Your task to perform on an android device: open a new tab in the chrome app Image 0: 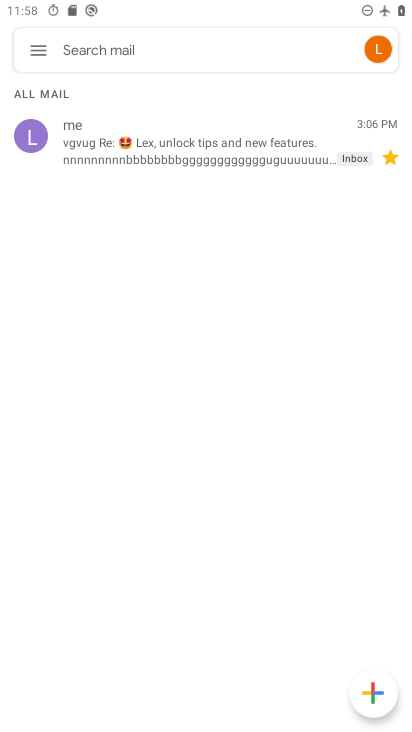
Step 0: press home button
Your task to perform on an android device: open a new tab in the chrome app Image 1: 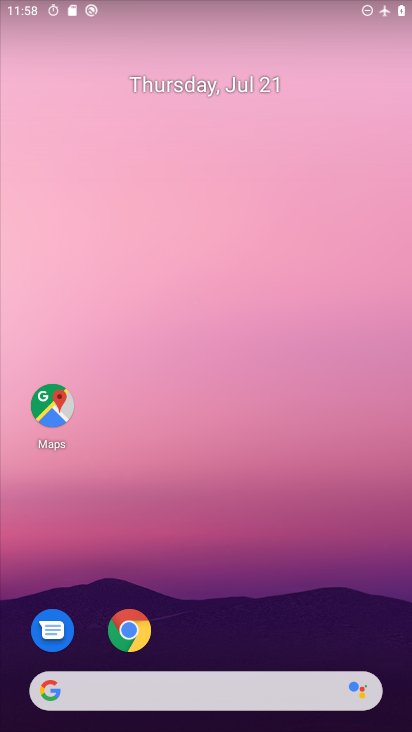
Step 1: click (126, 631)
Your task to perform on an android device: open a new tab in the chrome app Image 2: 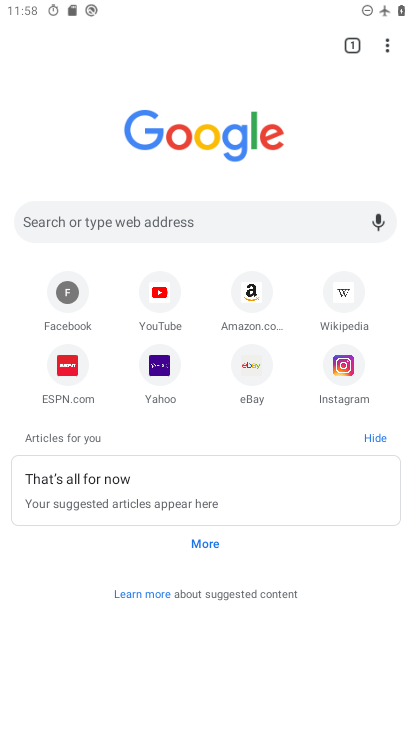
Step 2: click (350, 44)
Your task to perform on an android device: open a new tab in the chrome app Image 3: 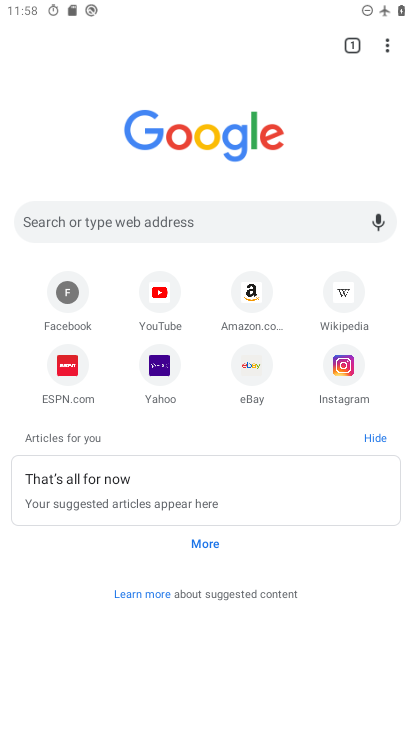
Step 3: click (308, 66)
Your task to perform on an android device: open a new tab in the chrome app Image 4: 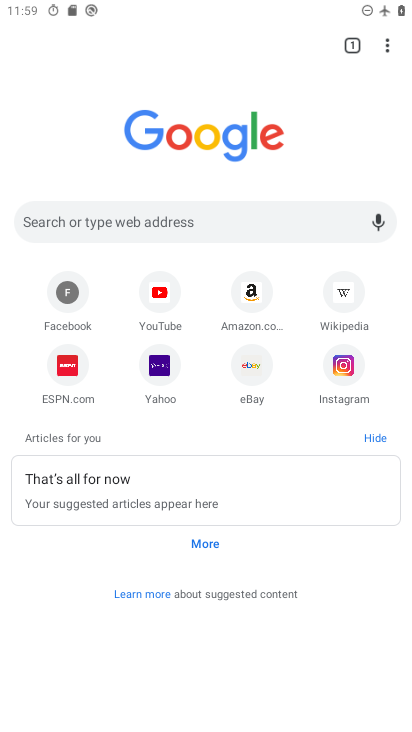
Step 4: click (354, 40)
Your task to perform on an android device: open a new tab in the chrome app Image 5: 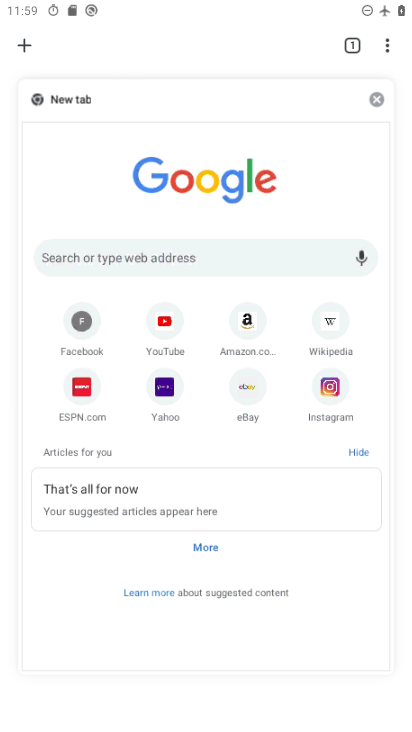
Step 5: click (25, 41)
Your task to perform on an android device: open a new tab in the chrome app Image 6: 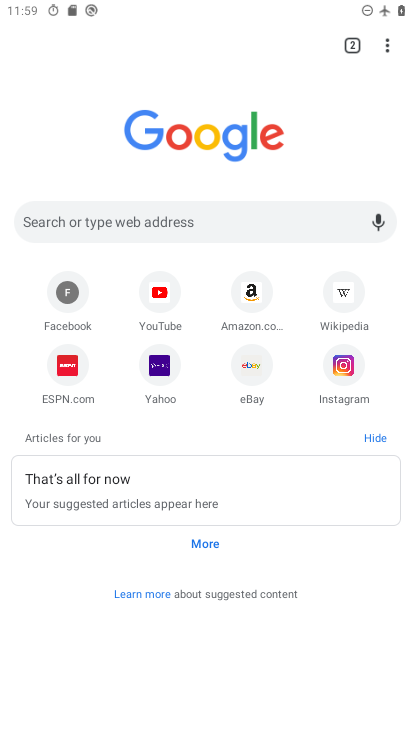
Step 6: task complete